Your task to perform on an android device: change the clock style Image 0: 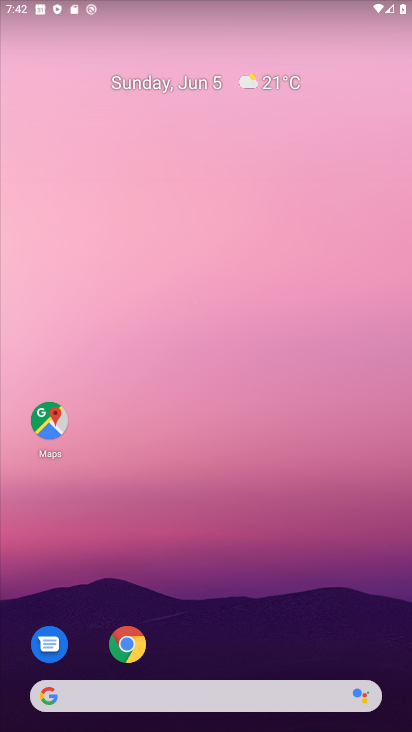
Step 0: task complete